Your task to perform on an android device: open app "Mercado Libre" (install if not already installed) Image 0: 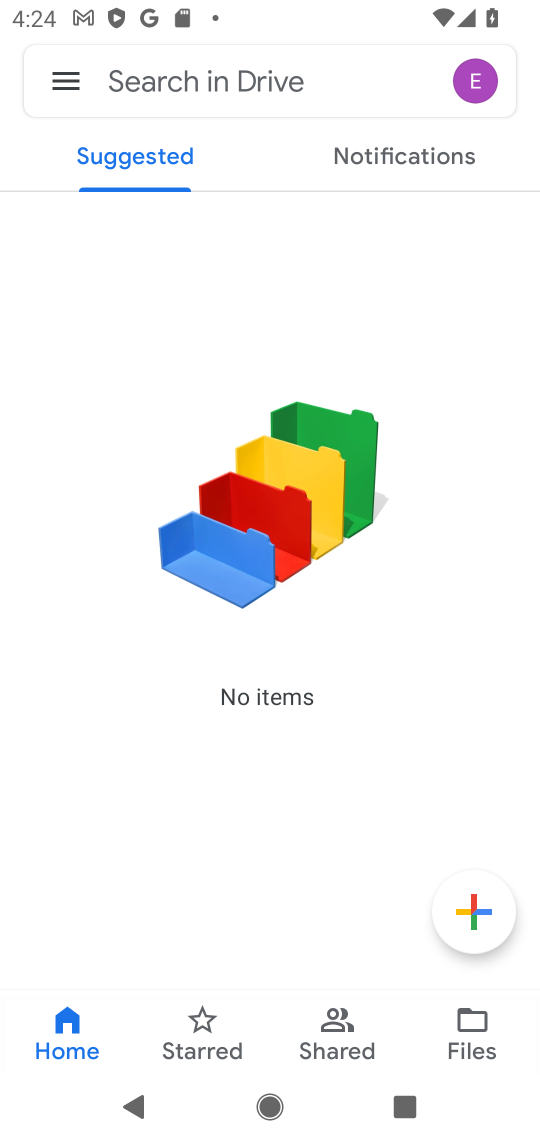
Step 0: press home button
Your task to perform on an android device: open app "Mercado Libre" (install if not already installed) Image 1: 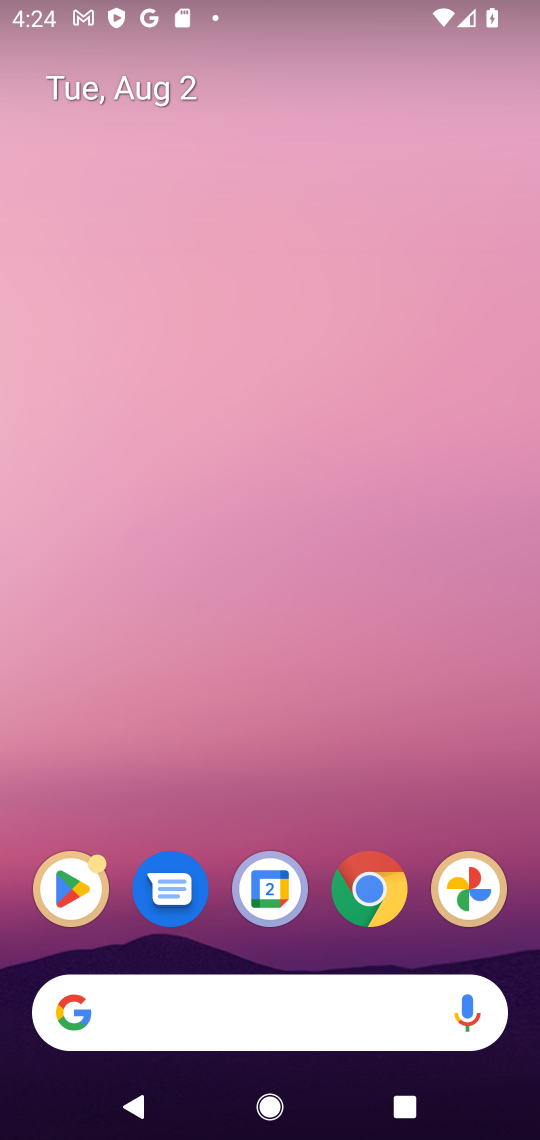
Step 1: click (84, 900)
Your task to perform on an android device: open app "Mercado Libre" (install if not already installed) Image 2: 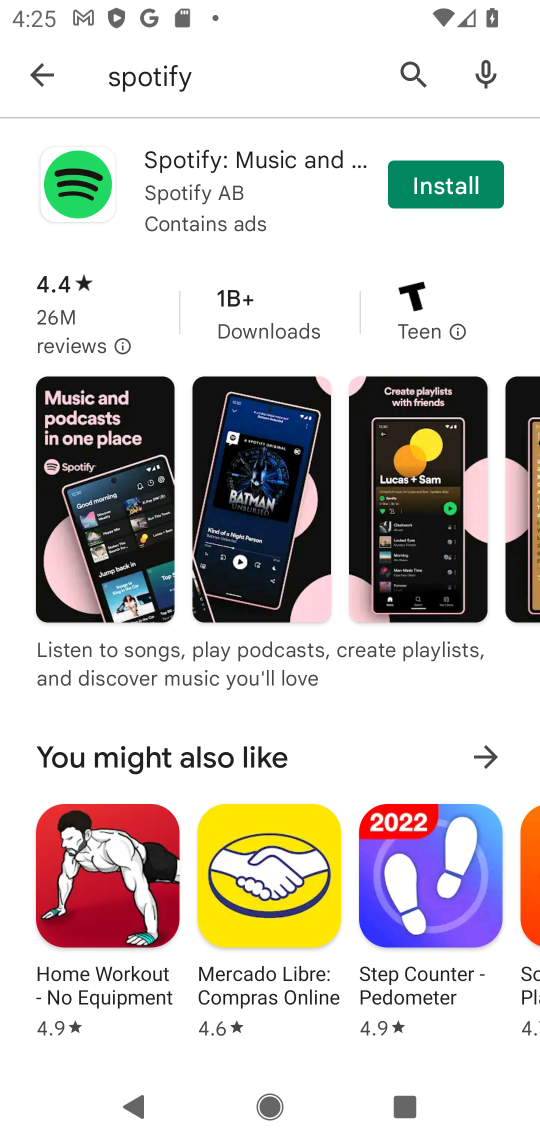
Step 2: click (420, 74)
Your task to perform on an android device: open app "Mercado Libre" (install if not already installed) Image 3: 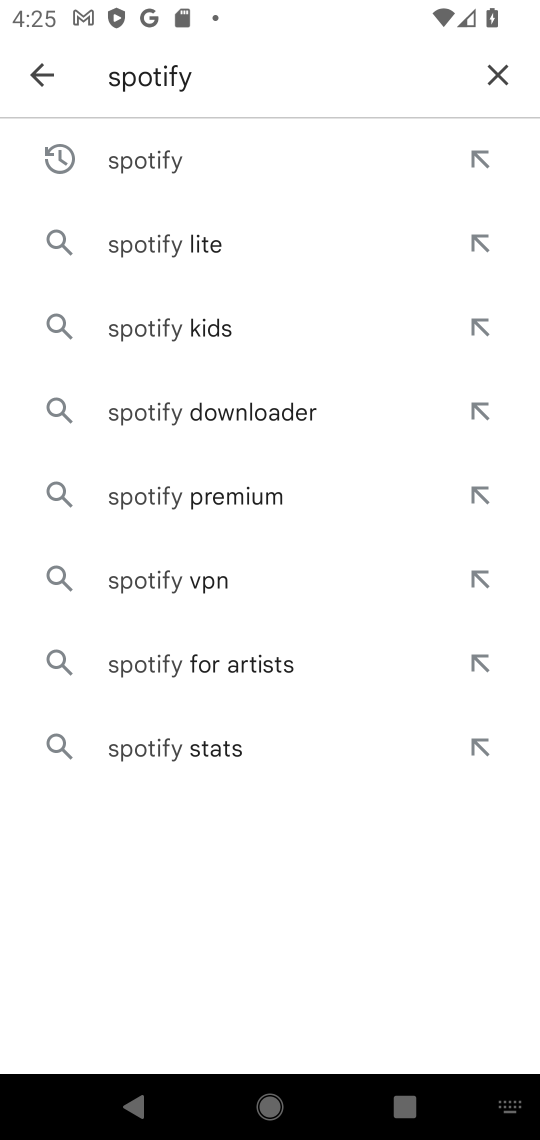
Step 3: click (499, 83)
Your task to perform on an android device: open app "Mercado Libre" (install if not already installed) Image 4: 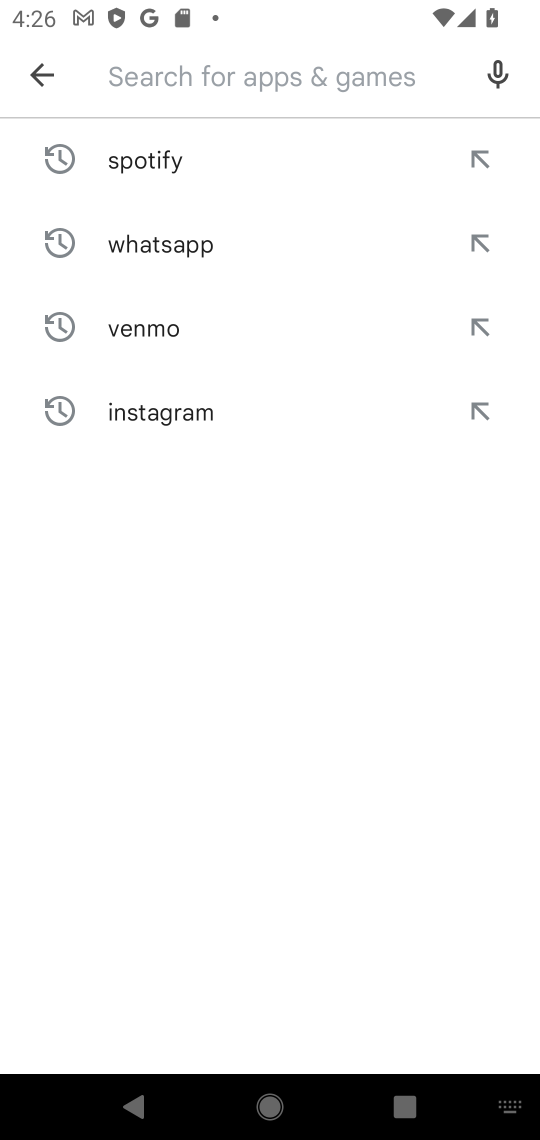
Step 4: type "mercado libre"
Your task to perform on an android device: open app "Mercado Libre" (install if not already installed) Image 5: 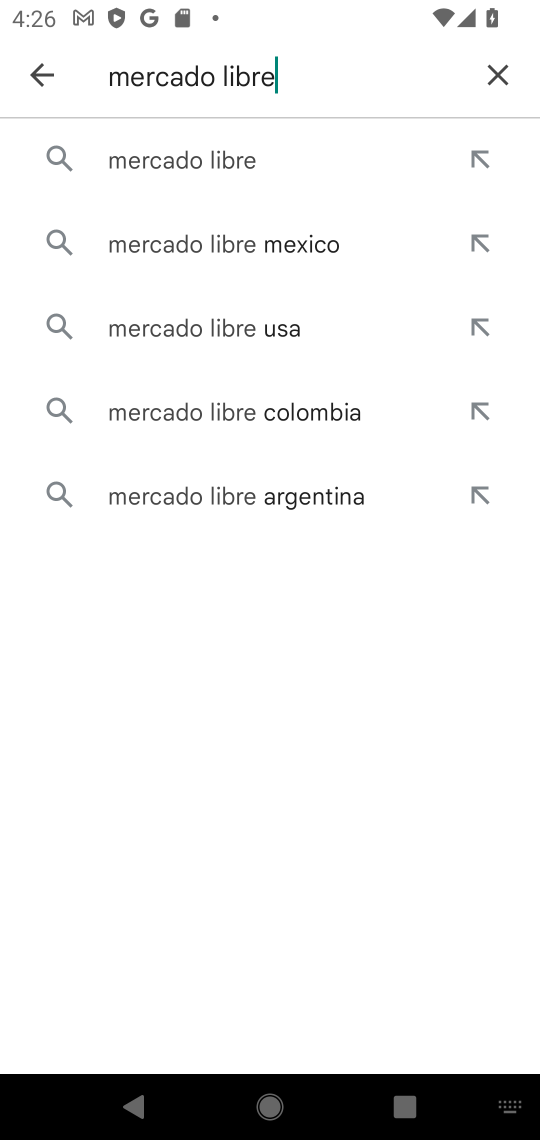
Step 5: click (364, 150)
Your task to perform on an android device: open app "Mercado Libre" (install if not already installed) Image 6: 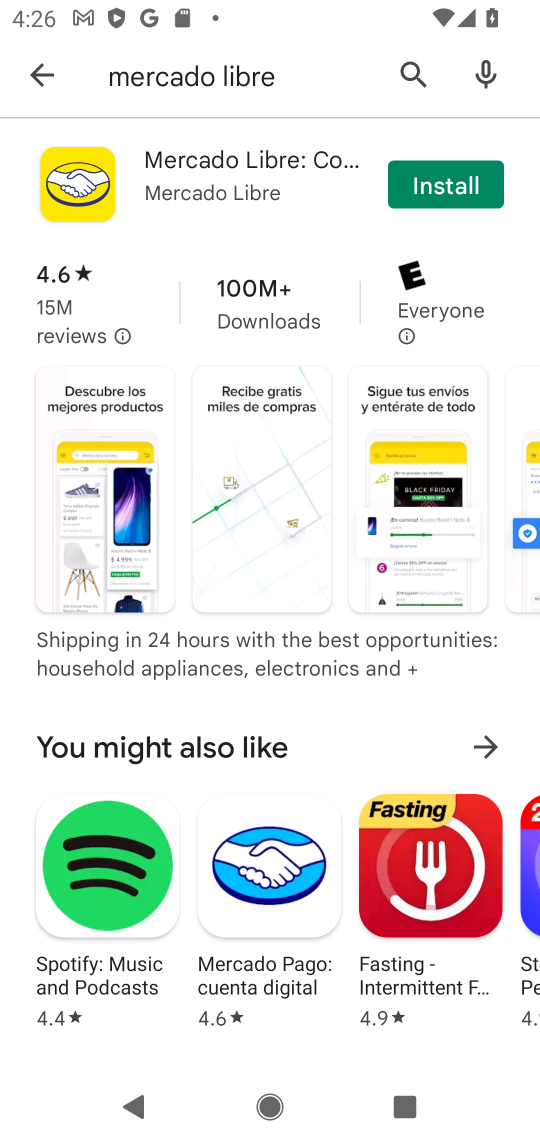
Step 6: click (439, 182)
Your task to perform on an android device: open app "Mercado Libre" (install if not already installed) Image 7: 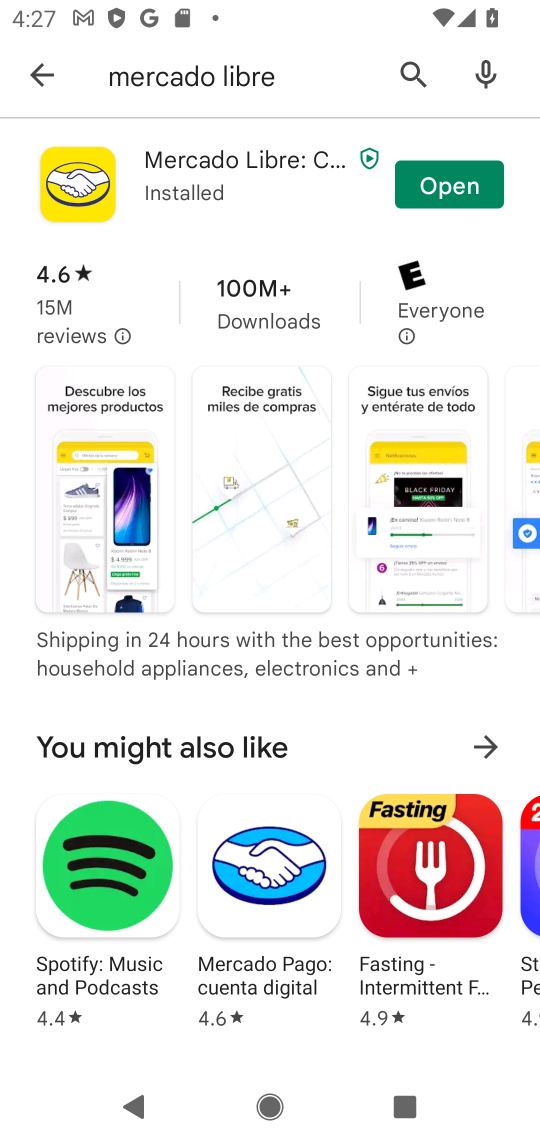
Step 7: click (439, 182)
Your task to perform on an android device: open app "Mercado Libre" (install if not already installed) Image 8: 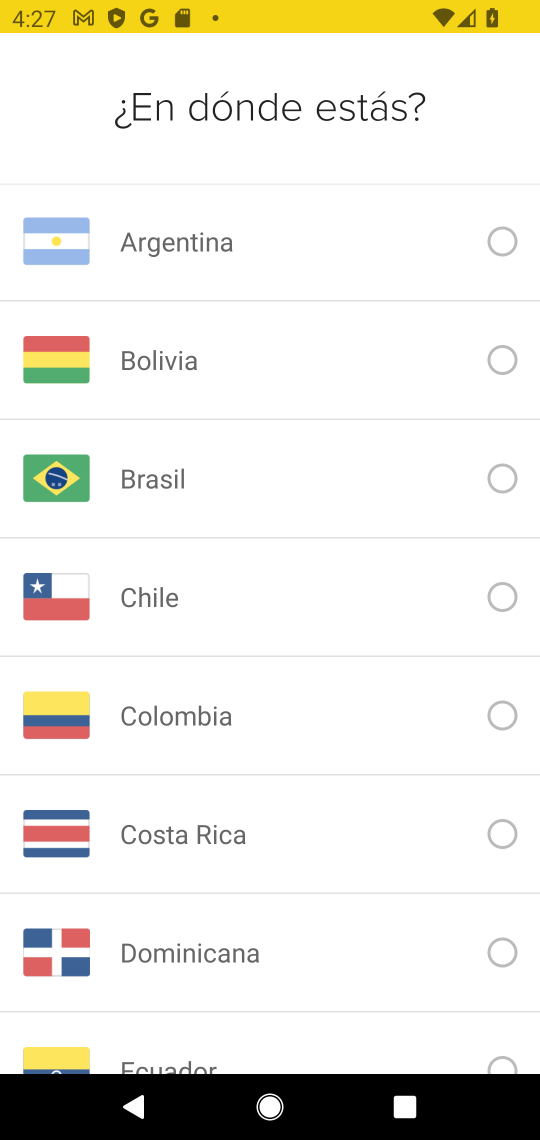
Step 8: task complete